Your task to perform on an android device: What's on my calendar today? Image 0: 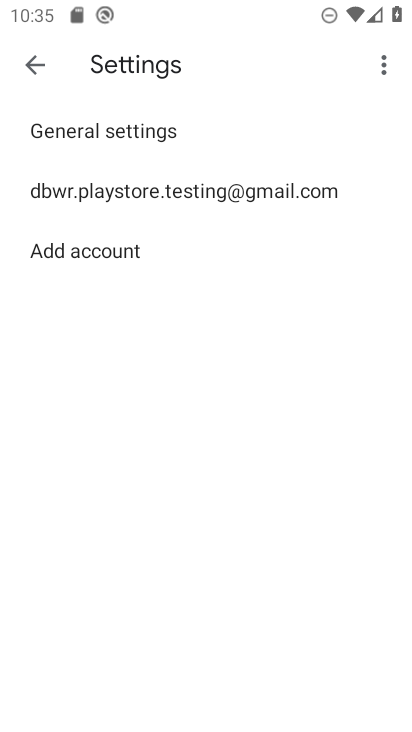
Step 0: press home button
Your task to perform on an android device: What's on my calendar today? Image 1: 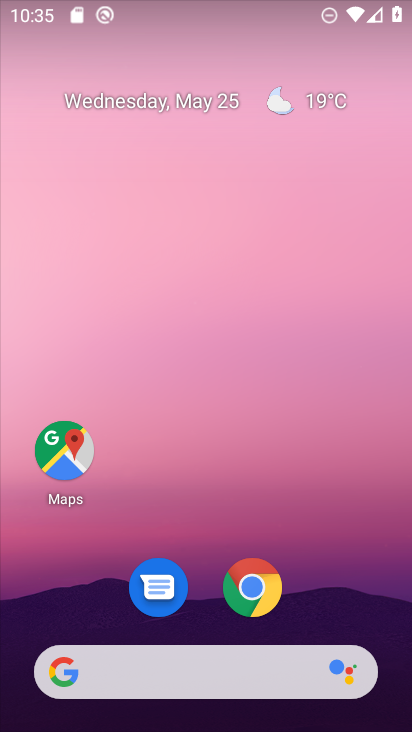
Step 1: drag from (382, 613) to (285, 41)
Your task to perform on an android device: What's on my calendar today? Image 2: 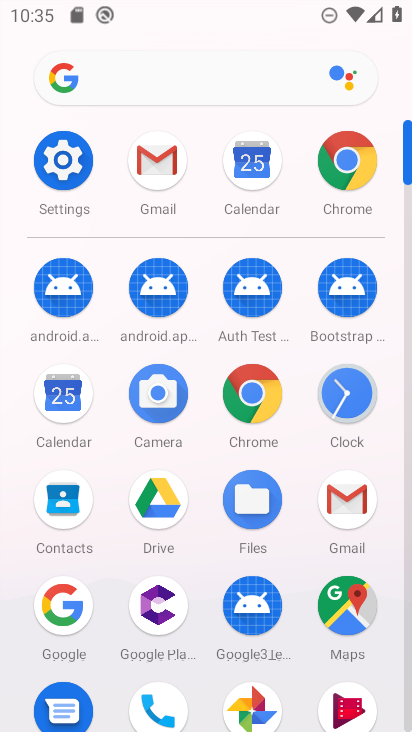
Step 2: click (69, 387)
Your task to perform on an android device: What's on my calendar today? Image 3: 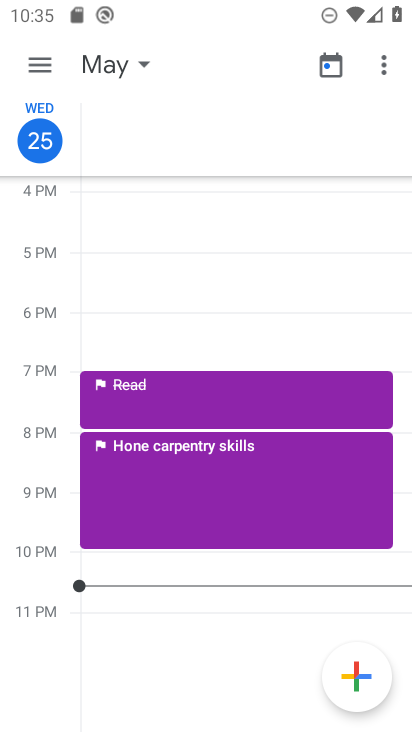
Step 3: click (45, 55)
Your task to perform on an android device: What's on my calendar today? Image 4: 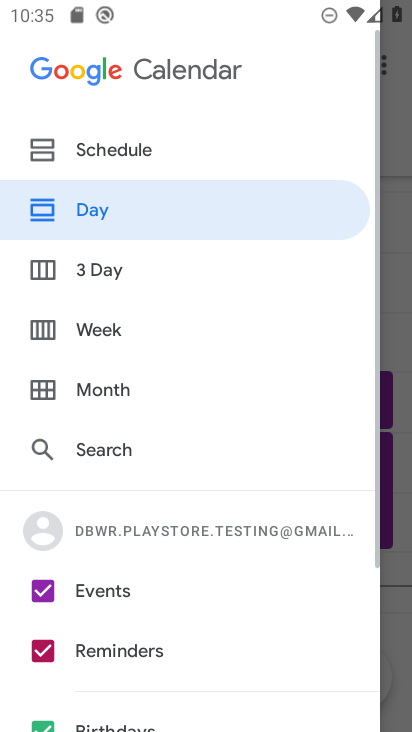
Step 4: click (135, 198)
Your task to perform on an android device: What's on my calendar today? Image 5: 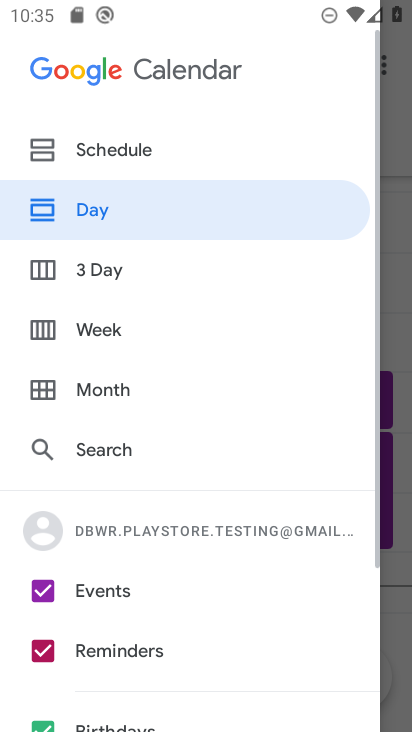
Step 5: click (262, 202)
Your task to perform on an android device: What's on my calendar today? Image 6: 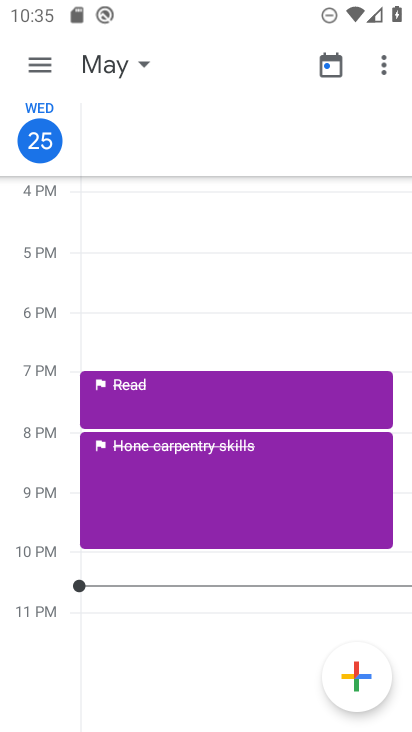
Step 6: task complete